Your task to perform on an android device: When is my next appointment? Image 0: 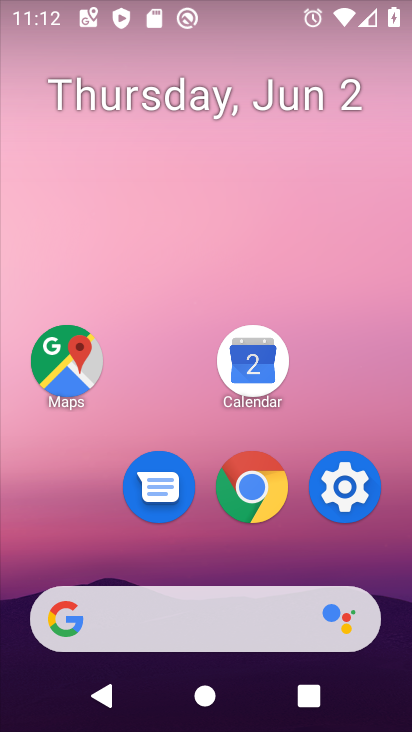
Step 0: press home button
Your task to perform on an android device: When is my next appointment? Image 1: 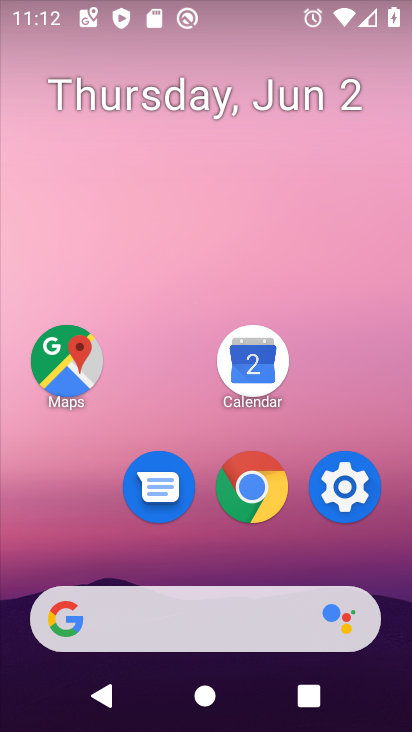
Step 1: click (268, 380)
Your task to perform on an android device: When is my next appointment? Image 2: 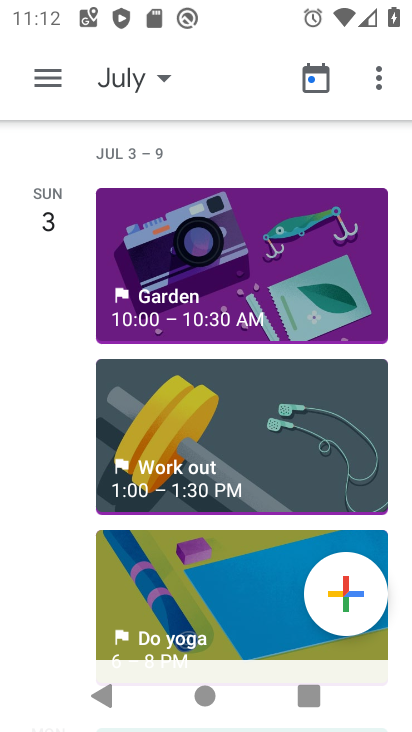
Step 2: click (63, 73)
Your task to perform on an android device: When is my next appointment? Image 3: 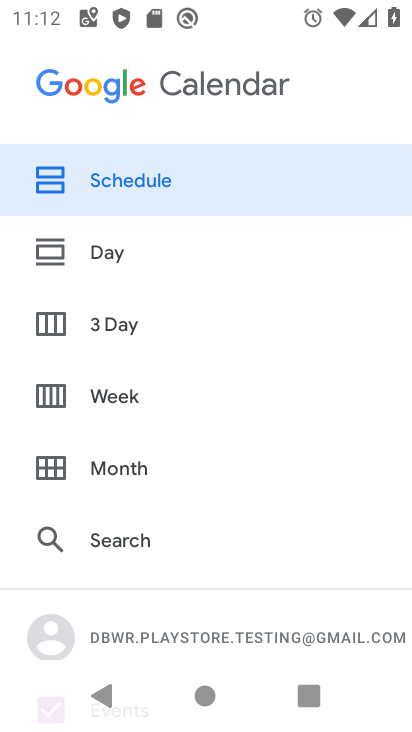
Step 3: click (100, 198)
Your task to perform on an android device: When is my next appointment? Image 4: 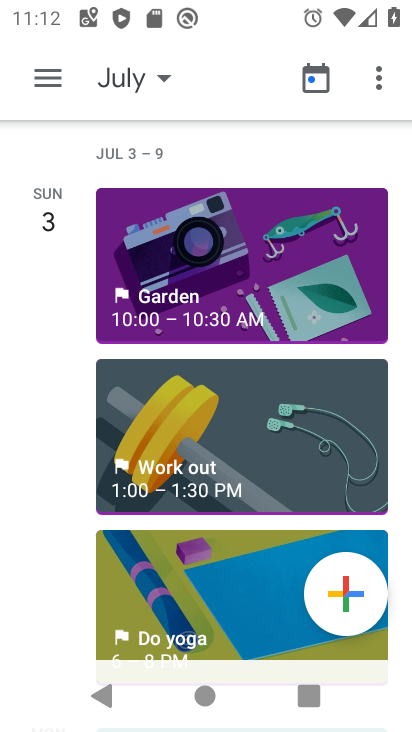
Step 4: task complete